Your task to perform on an android device: Search for vegetarian restaurants on Maps Image 0: 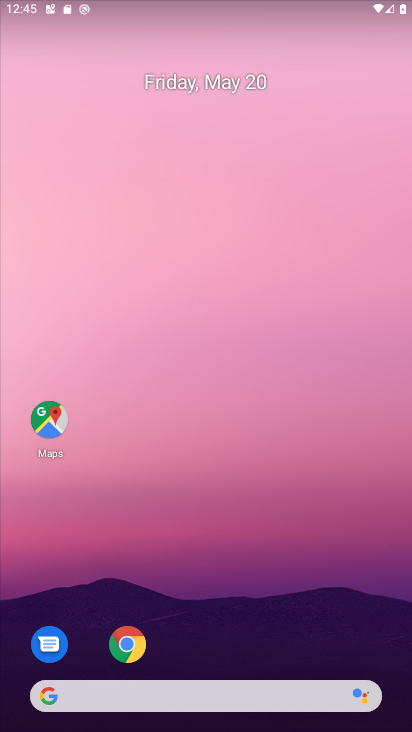
Step 0: click (40, 423)
Your task to perform on an android device: Search for vegetarian restaurants on Maps Image 1: 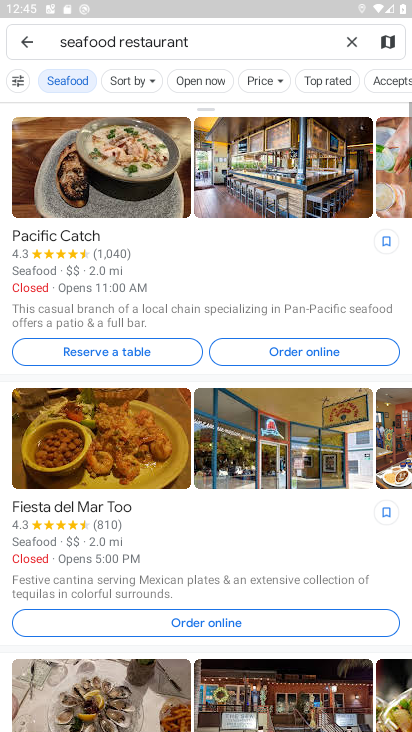
Step 1: click (350, 41)
Your task to perform on an android device: Search for vegetarian restaurants on Maps Image 2: 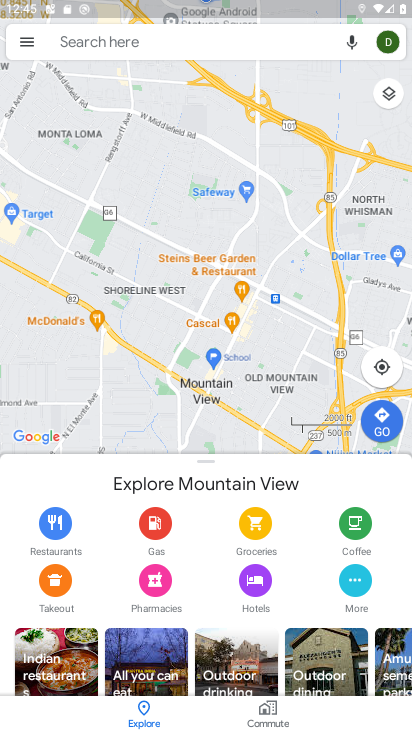
Step 2: click (204, 45)
Your task to perform on an android device: Search for vegetarian restaurants on Maps Image 3: 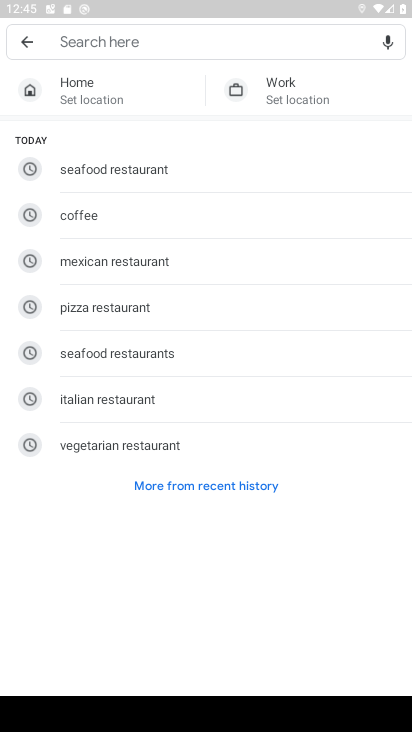
Step 3: click (127, 447)
Your task to perform on an android device: Search for vegetarian restaurants on Maps Image 4: 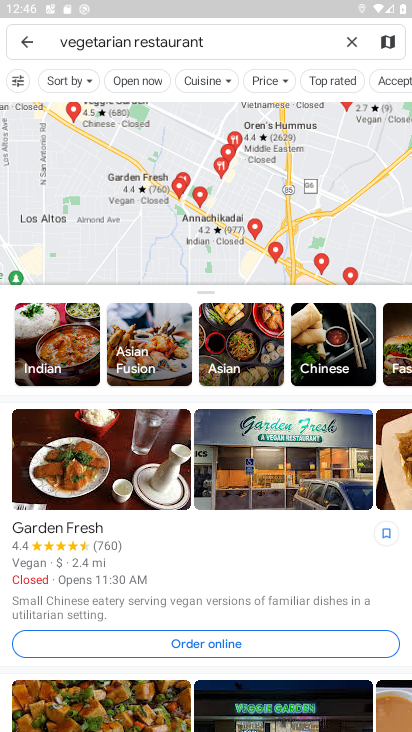
Step 4: task complete